Your task to perform on an android device: open app "Calculator" Image 0: 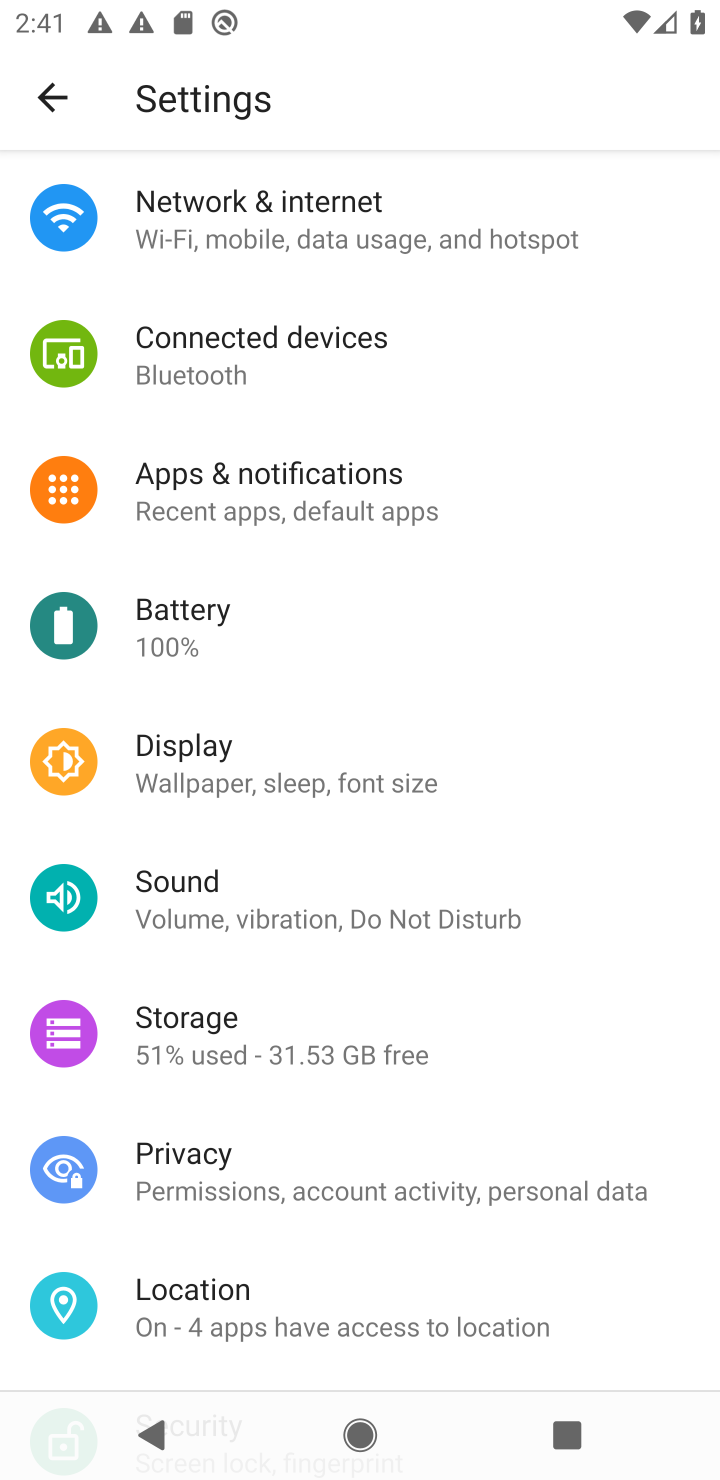
Step 0: press home button
Your task to perform on an android device: open app "Calculator" Image 1: 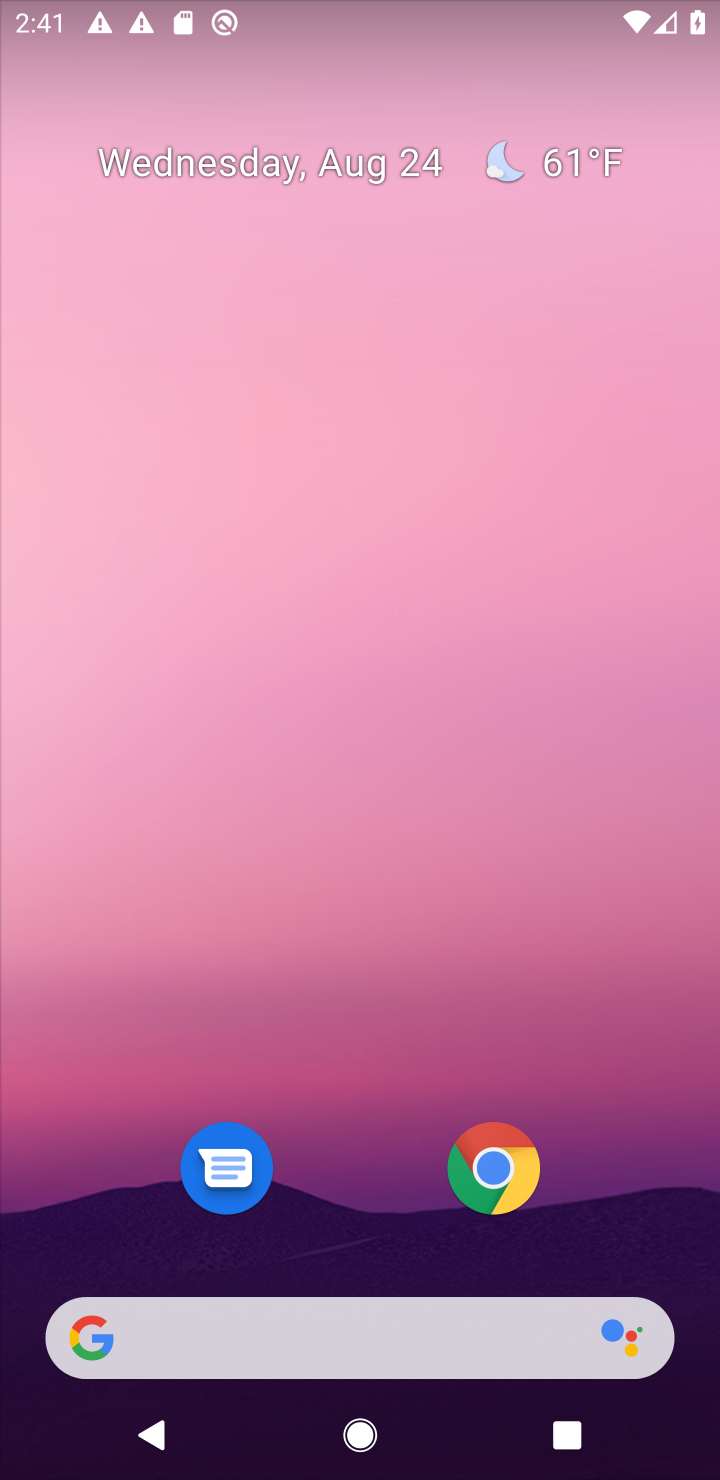
Step 1: drag from (655, 1252) to (602, 365)
Your task to perform on an android device: open app "Calculator" Image 2: 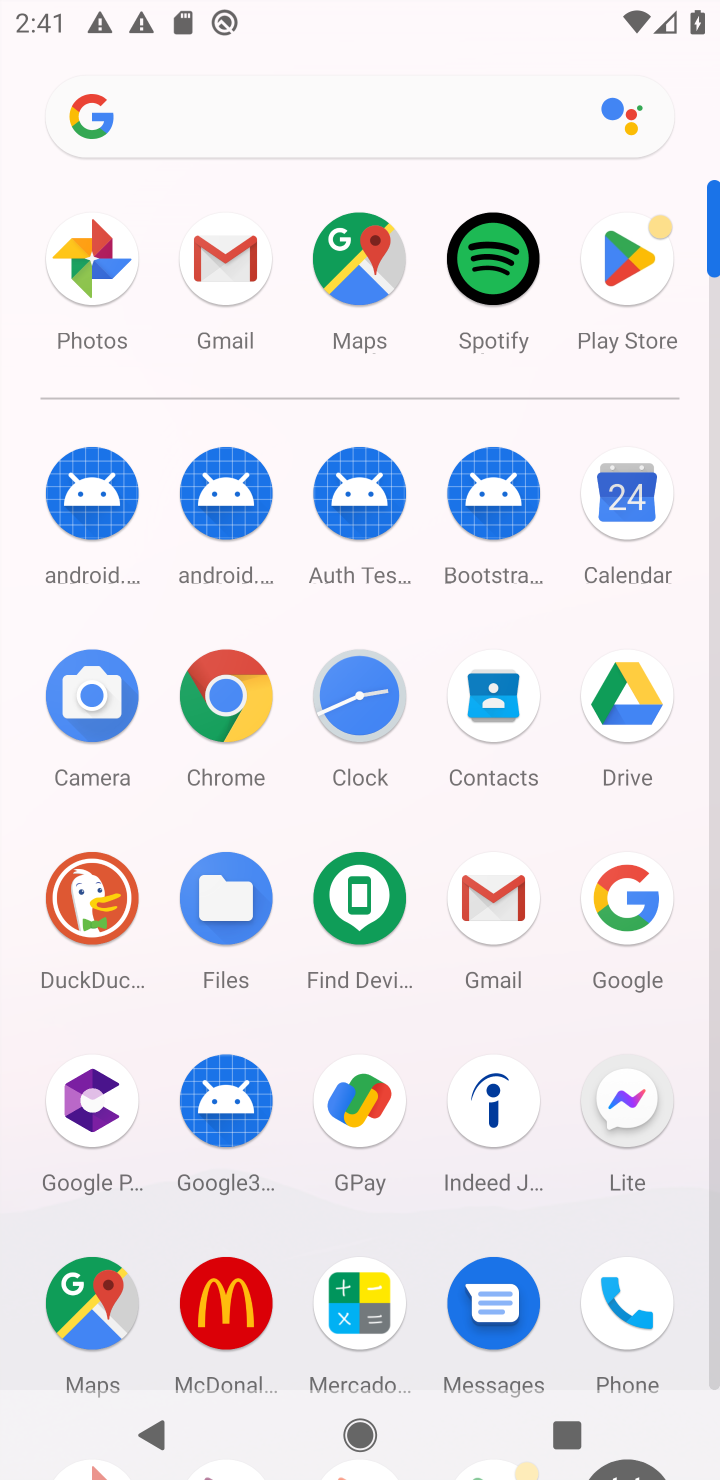
Step 2: click (712, 1358)
Your task to perform on an android device: open app "Calculator" Image 3: 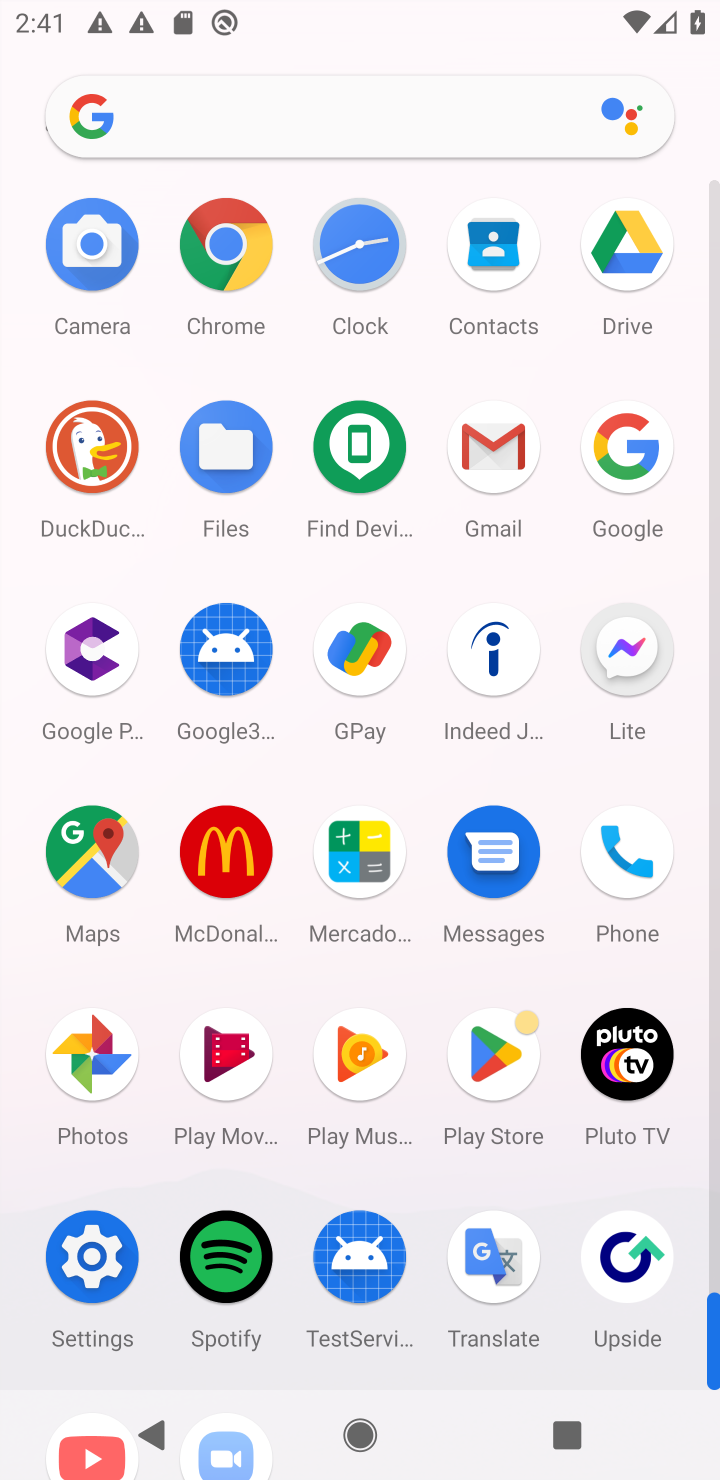
Step 3: click (500, 1047)
Your task to perform on an android device: open app "Calculator" Image 4: 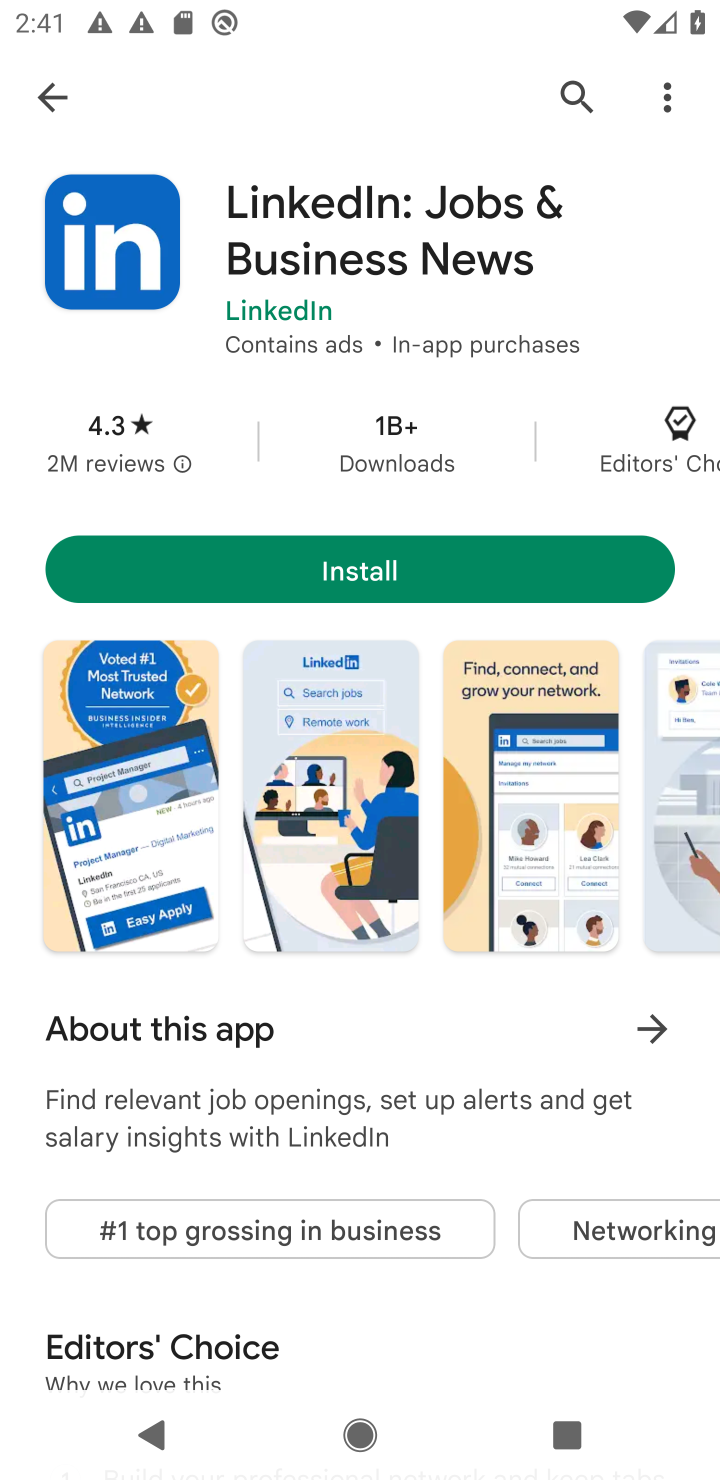
Step 4: click (566, 88)
Your task to perform on an android device: open app "Calculator" Image 5: 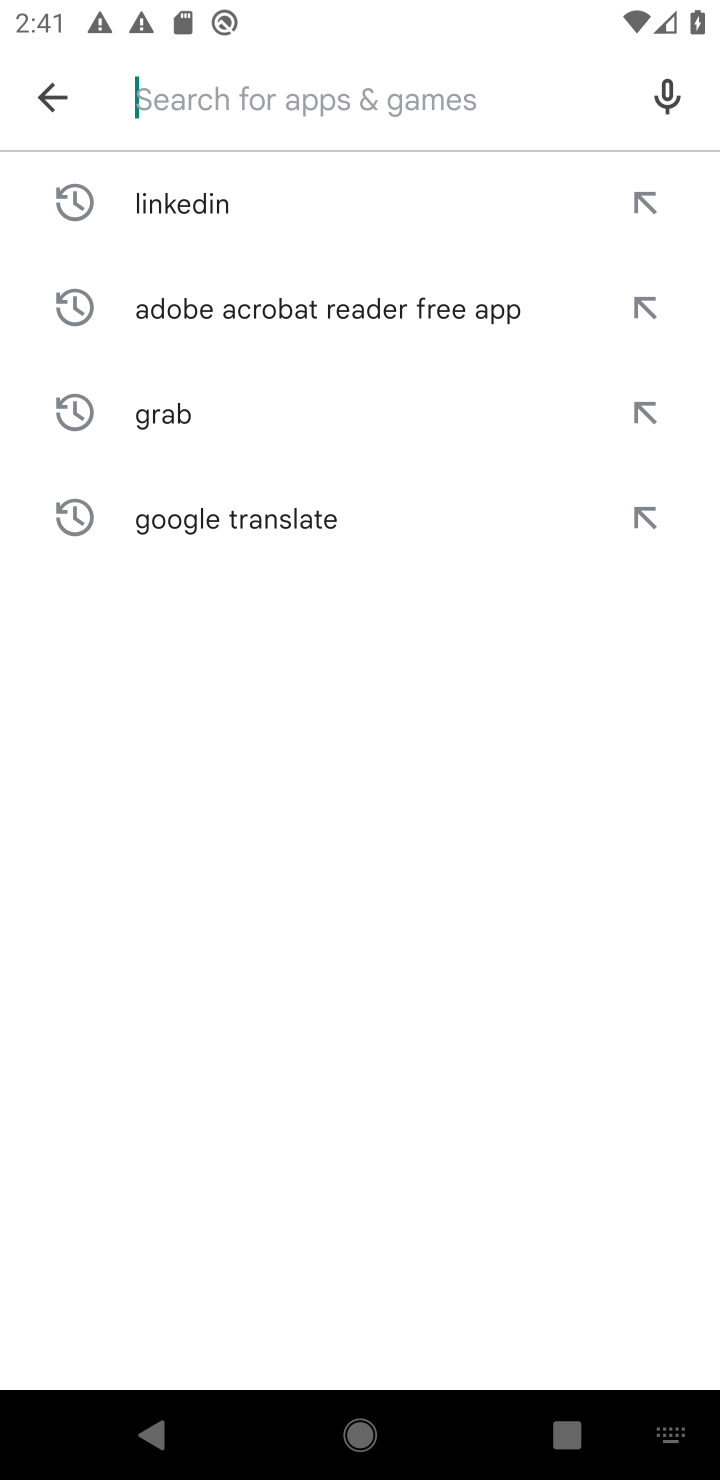
Step 5: type "Calculator"
Your task to perform on an android device: open app "Calculator" Image 6: 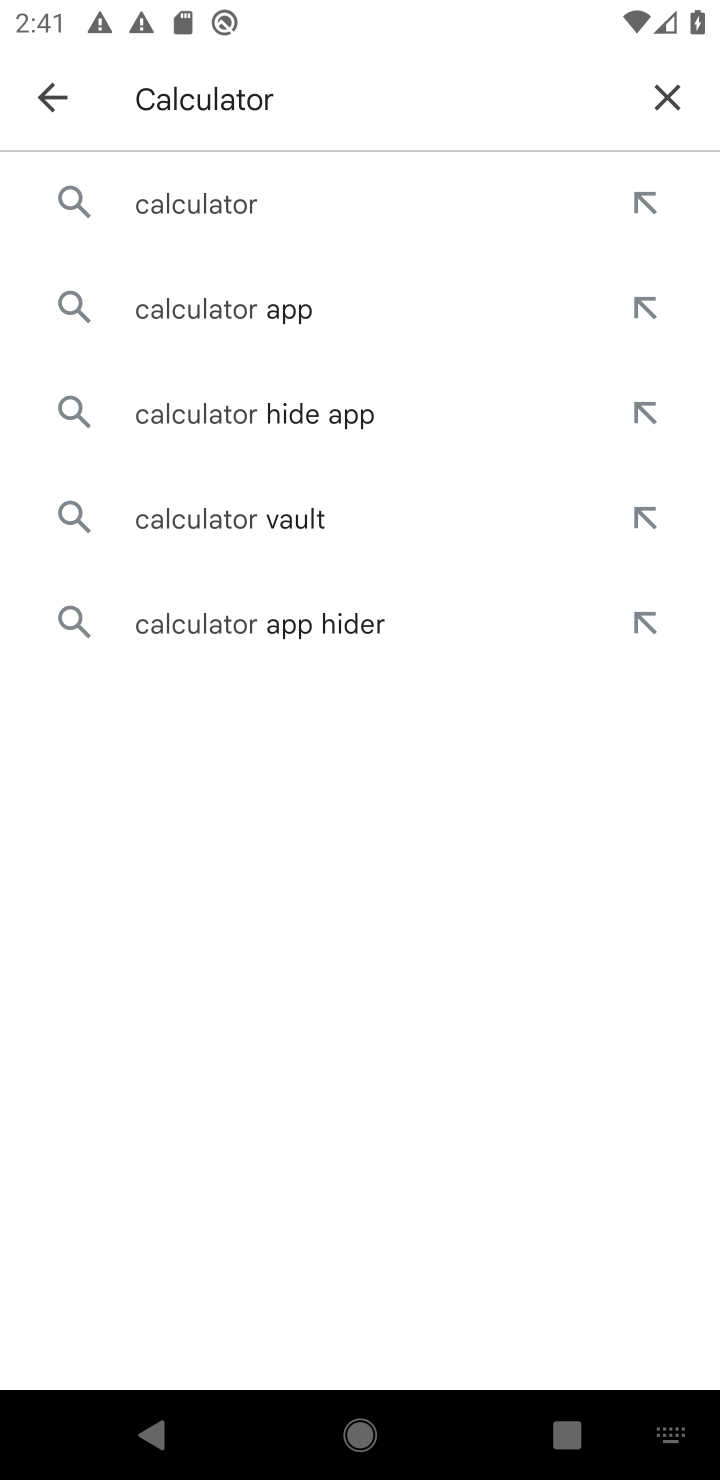
Step 6: click (181, 188)
Your task to perform on an android device: open app "Calculator" Image 7: 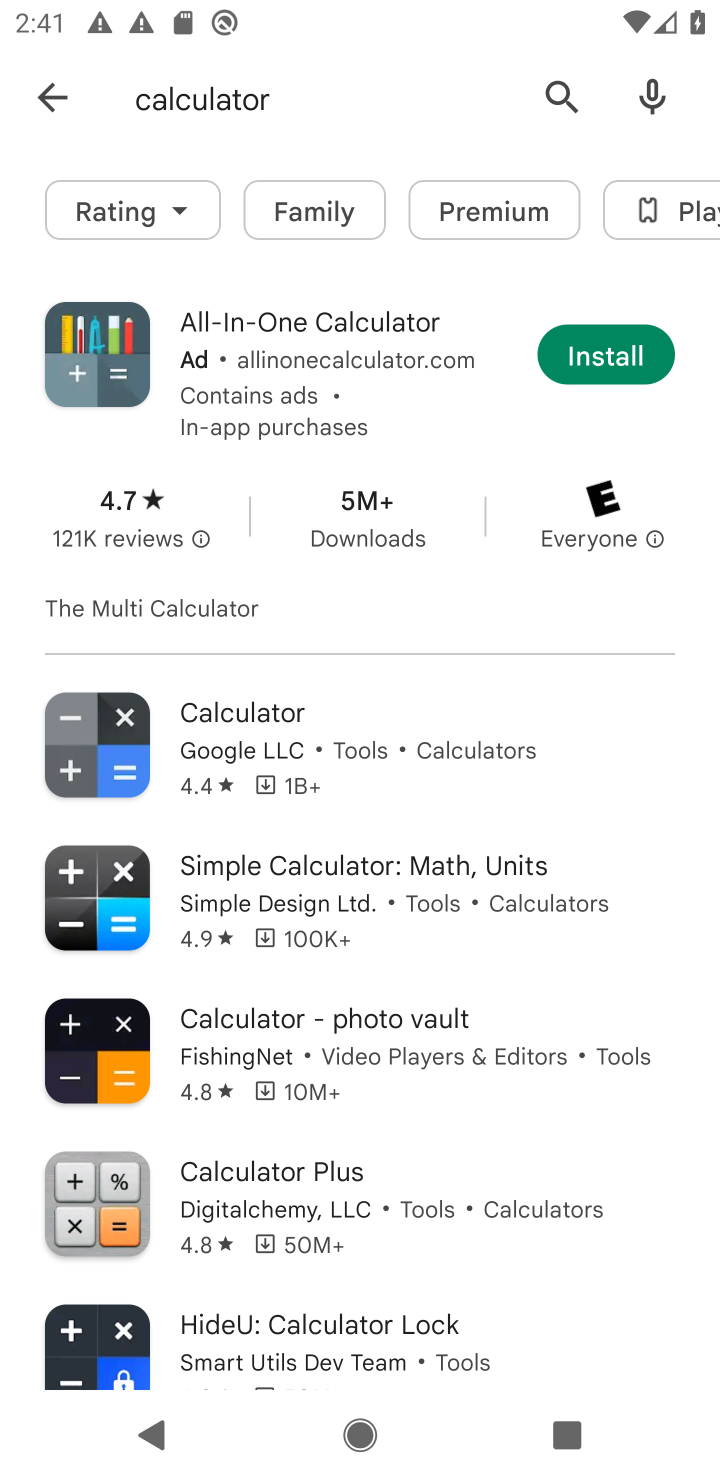
Step 7: click (254, 755)
Your task to perform on an android device: open app "Calculator" Image 8: 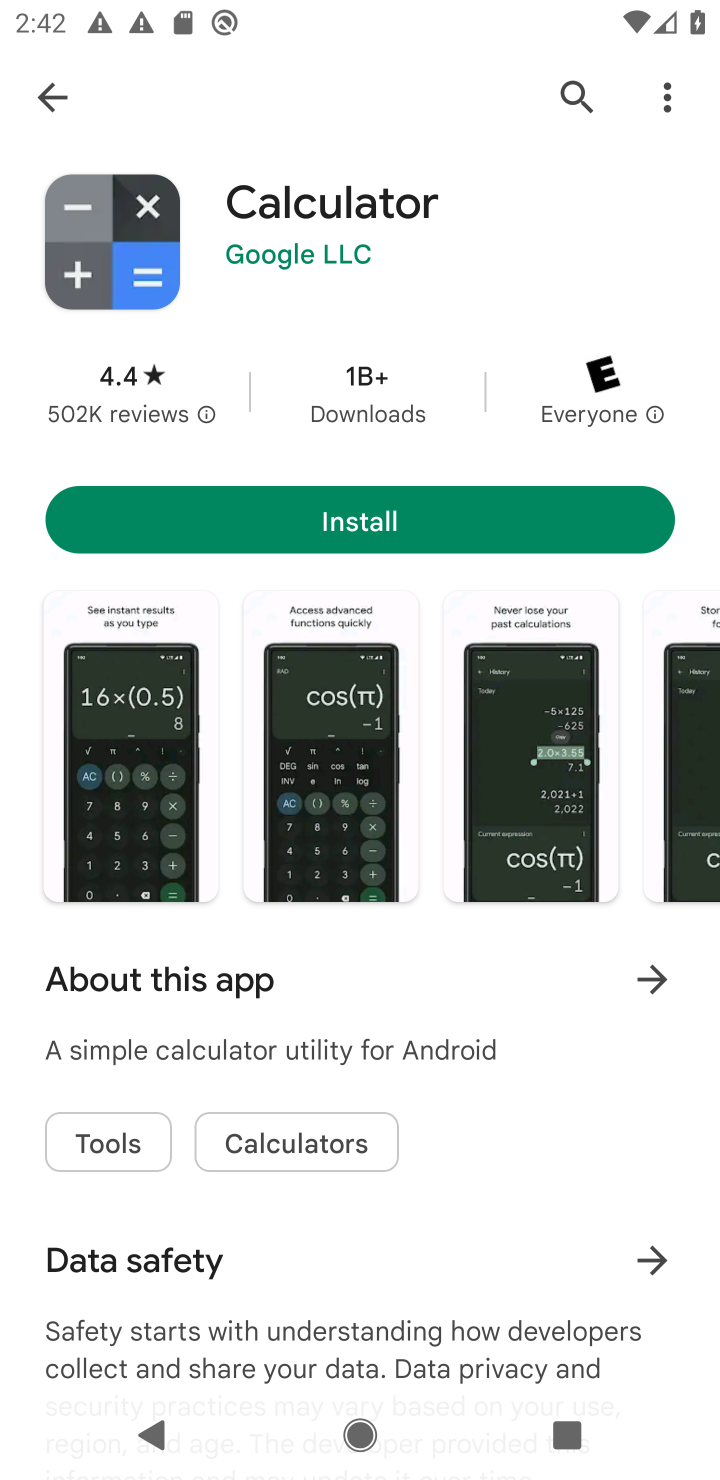
Step 8: task complete